Your task to perform on an android device: change your default location settings in chrome Image 0: 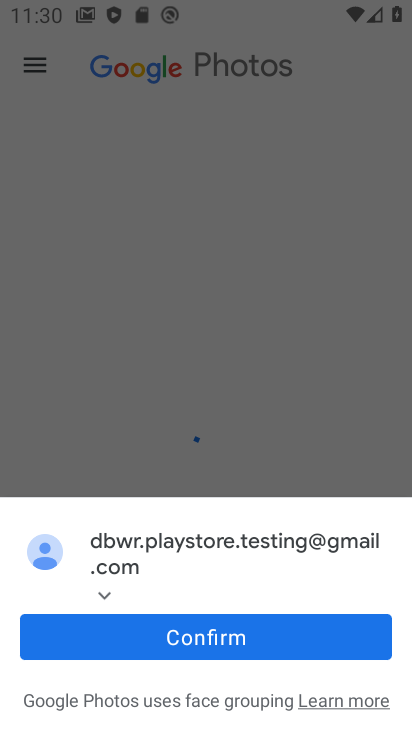
Step 0: press back button
Your task to perform on an android device: change your default location settings in chrome Image 1: 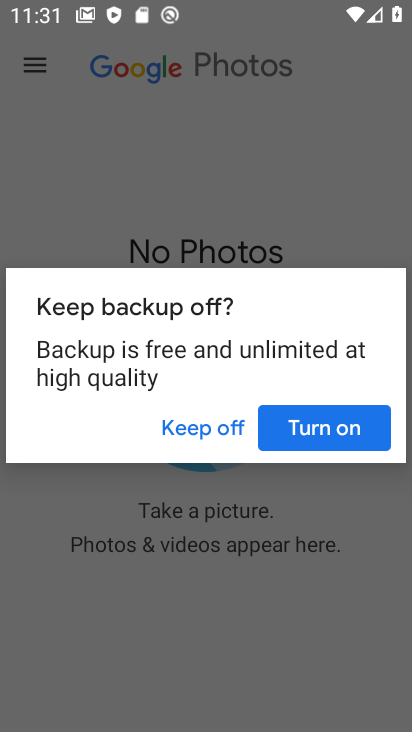
Step 1: press back button
Your task to perform on an android device: change your default location settings in chrome Image 2: 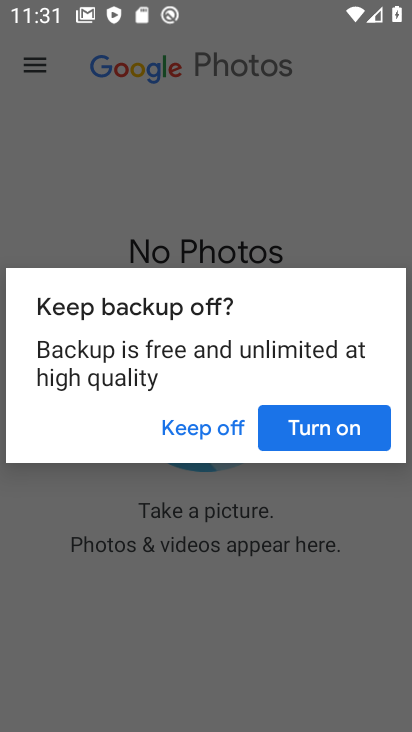
Step 2: press back button
Your task to perform on an android device: change your default location settings in chrome Image 3: 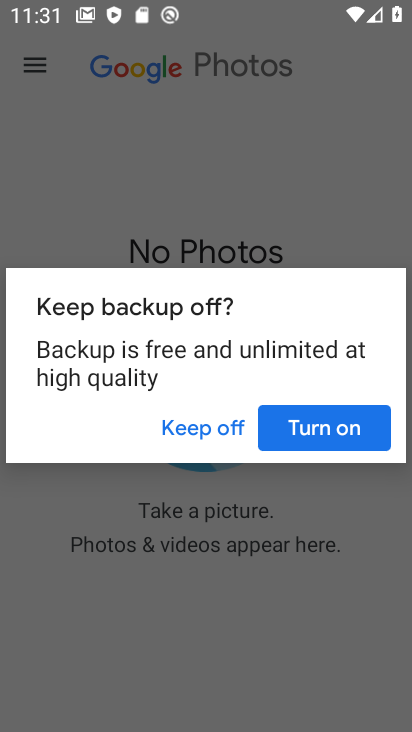
Step 3: click (193, 436)
Your task to perform on an android device: change your default location settings in chrome Image 4: 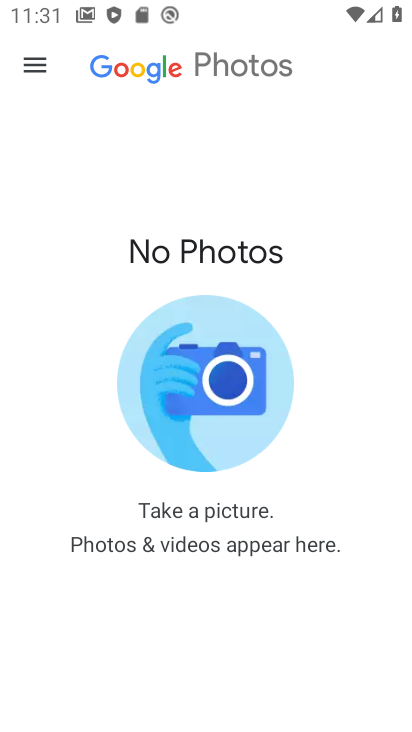
Step 4: press back button
Your task to perform on an android device: change your default location settings in chrome Image 5: 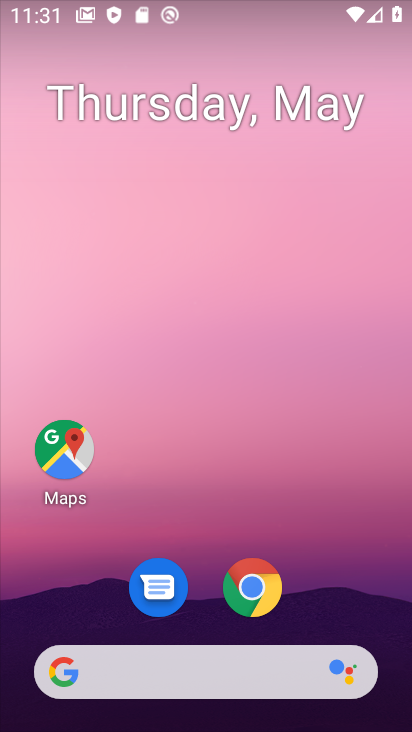
Step 5: click (251, 589)
Your task to perform on an android device: change your default location settings in chrome Image 6: 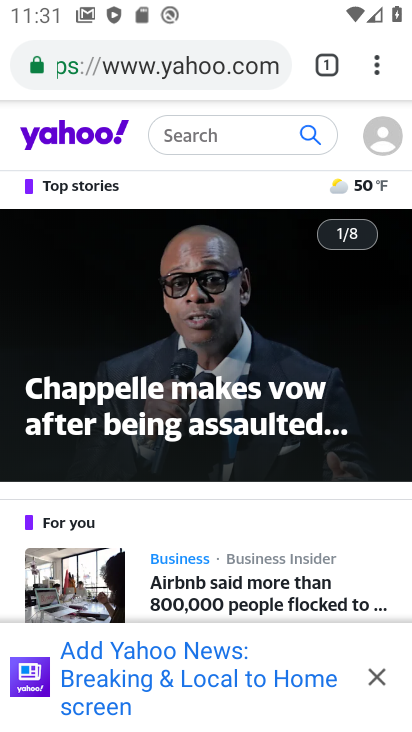
Step 6: drag from (377, 56) to (131, 628)
Your task to perform on an android device: change your default location settings in chrome Image 7: 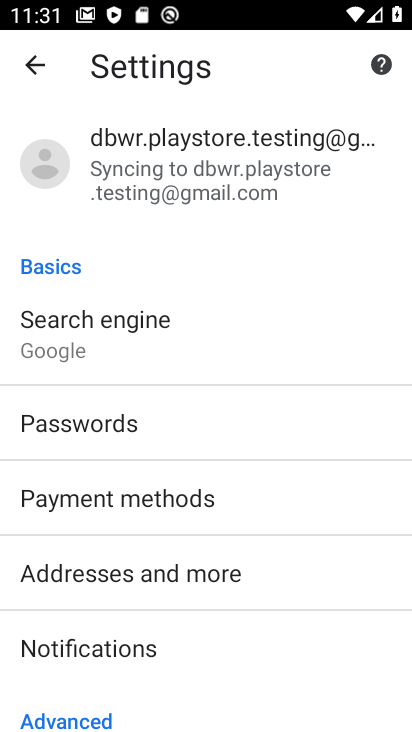
Step 7: drag from (138, 669) to (320, 107)
Your task to perform on an android device: change your default location settings in chrome Image 8: 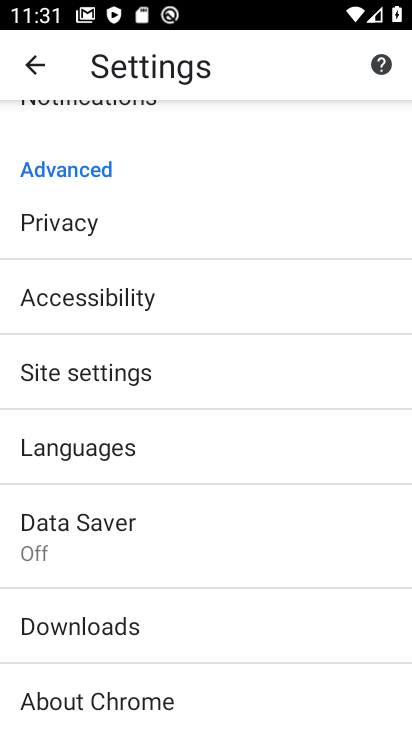
Step 8: click (93, 375)
Your task to perform on an android device: change your default location settings in chrome Image 9: 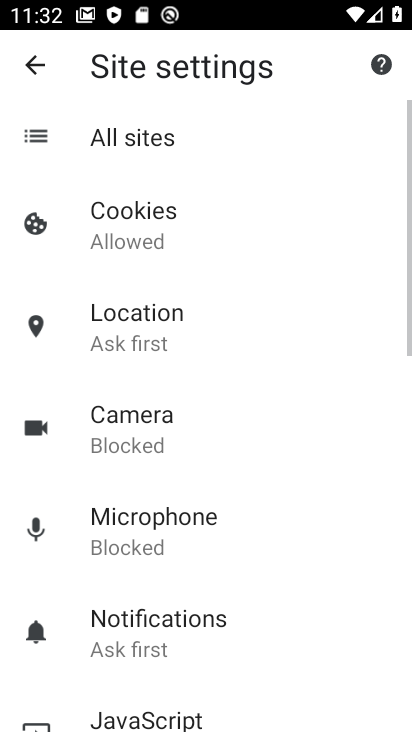
Step 9: click (161, 325)
Your task to perform on an android device: change your default location settings in chrome Image 10: 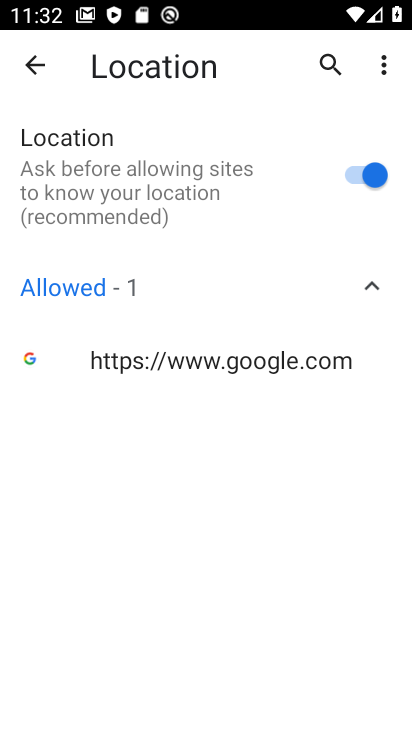
Step 10: click (219, 363)
Your task to perform on an android device: change your default location settings in chrome Image 11: 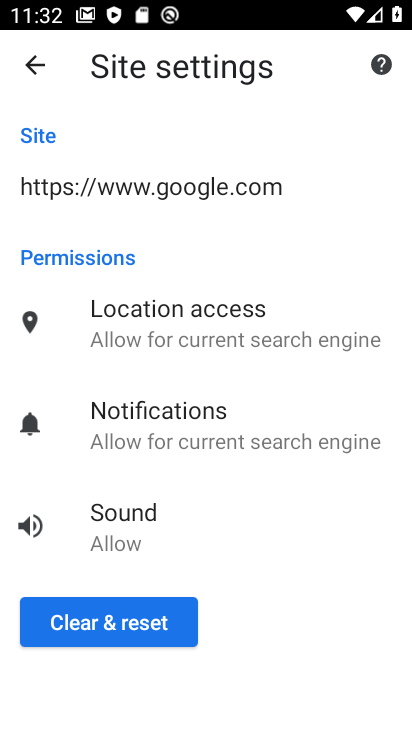
Step 11: click (159, 325)
Your task to perform on an android device: change your default location settings in chrome Image 12: 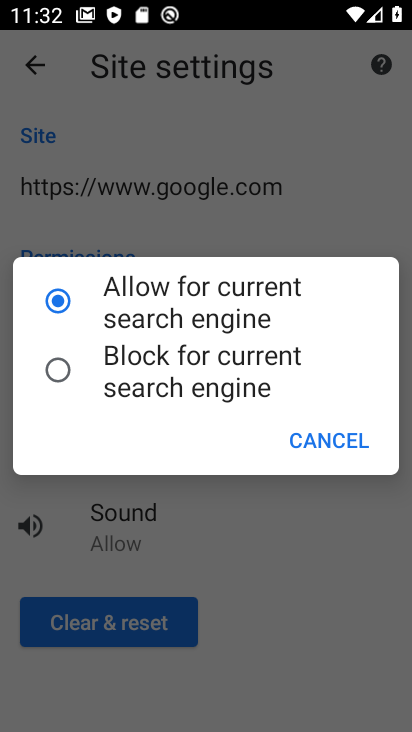
Step 12: click (52, 369)
Your task to perform on an android device: change your default location settings in chrome Image 13: 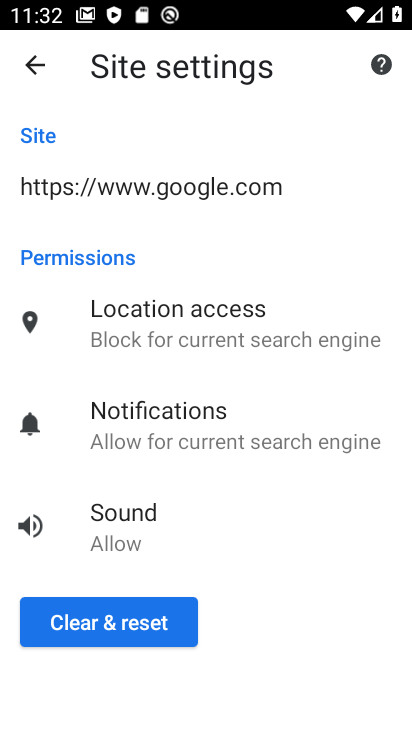
Step 13: task complete